Your task to perform on an android device: Open Amazon Image 0: 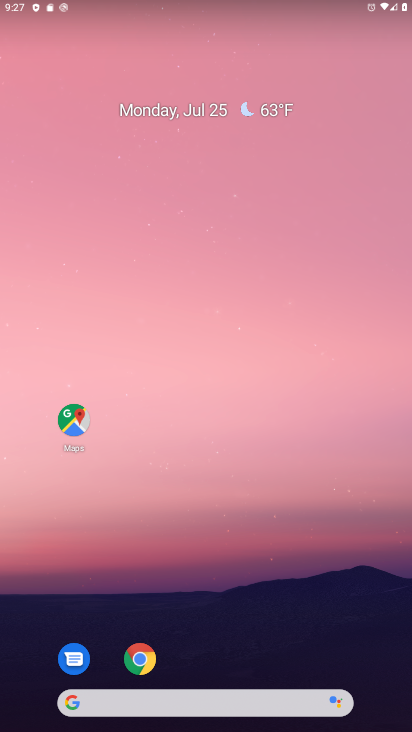
Step 0: drag from (233, 729) to (228, 186)
Your task to perform on an android device: Open Amazon Image 1: 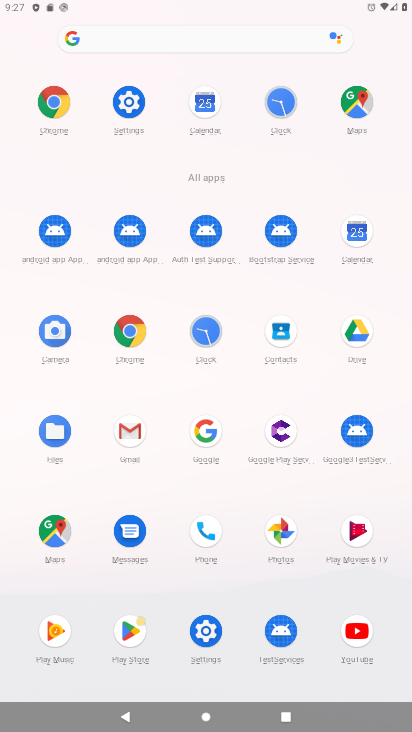
Step 1: click (128, 330)
Your task to perform on an android device: Open Amazon Image 2: 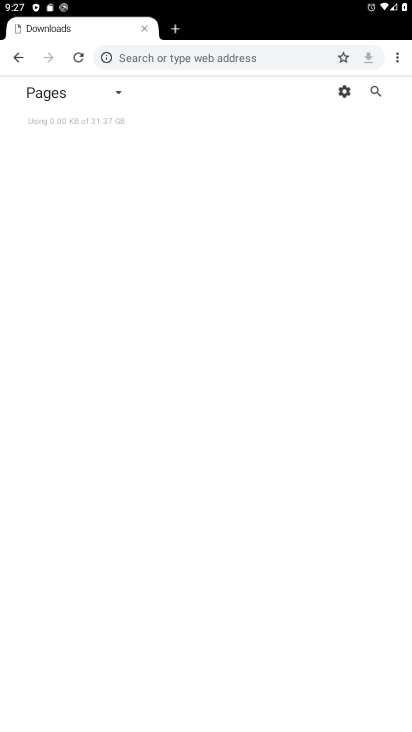
Step 2: click (398, 59)
Your task to perform on an android device: Open Amazon Image 3: 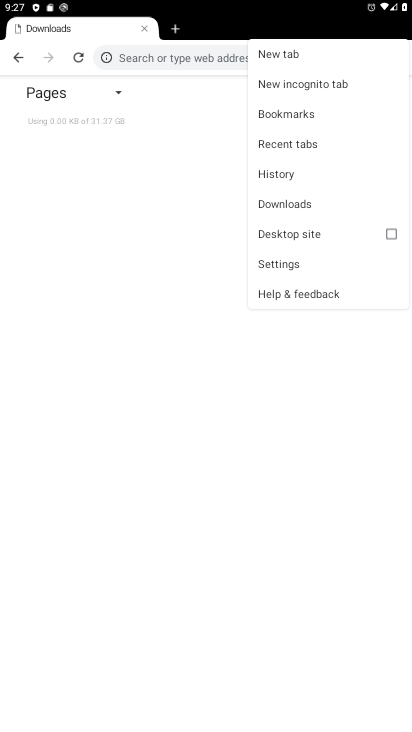
Step 3: click (283, 57)
Your task to perform on an android device: Open Amazon Image 4: 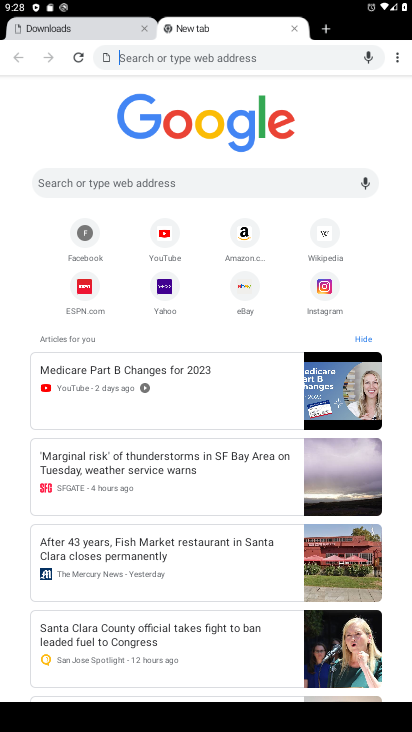
Step 4: click (242, 237)
Your task to perform on an android device: Open Amazon Image 5: 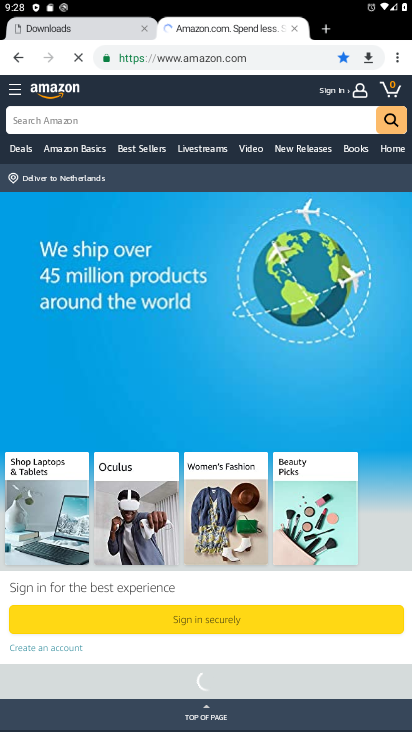
Step 5: task complete